Your task to perform on an android device: Show the shopping cart on newegg. Add "razer thresher" to the cart on newegg, then select checkout. Image 0: 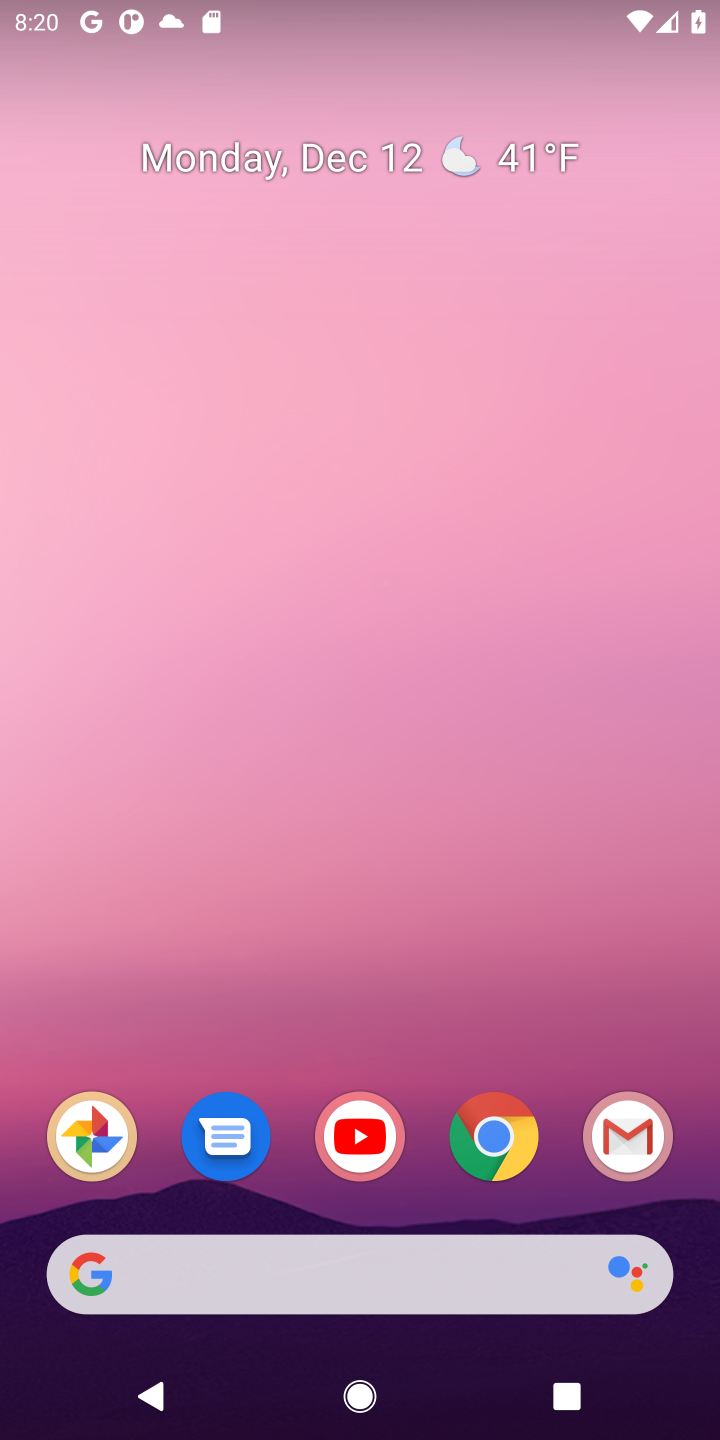
Step 0: click (499, 1142)
Your task to perform on an android device: Show the shopping cart on newegg. Add "razer thresher" to the cart on newegg, then select checkout. Image 1: 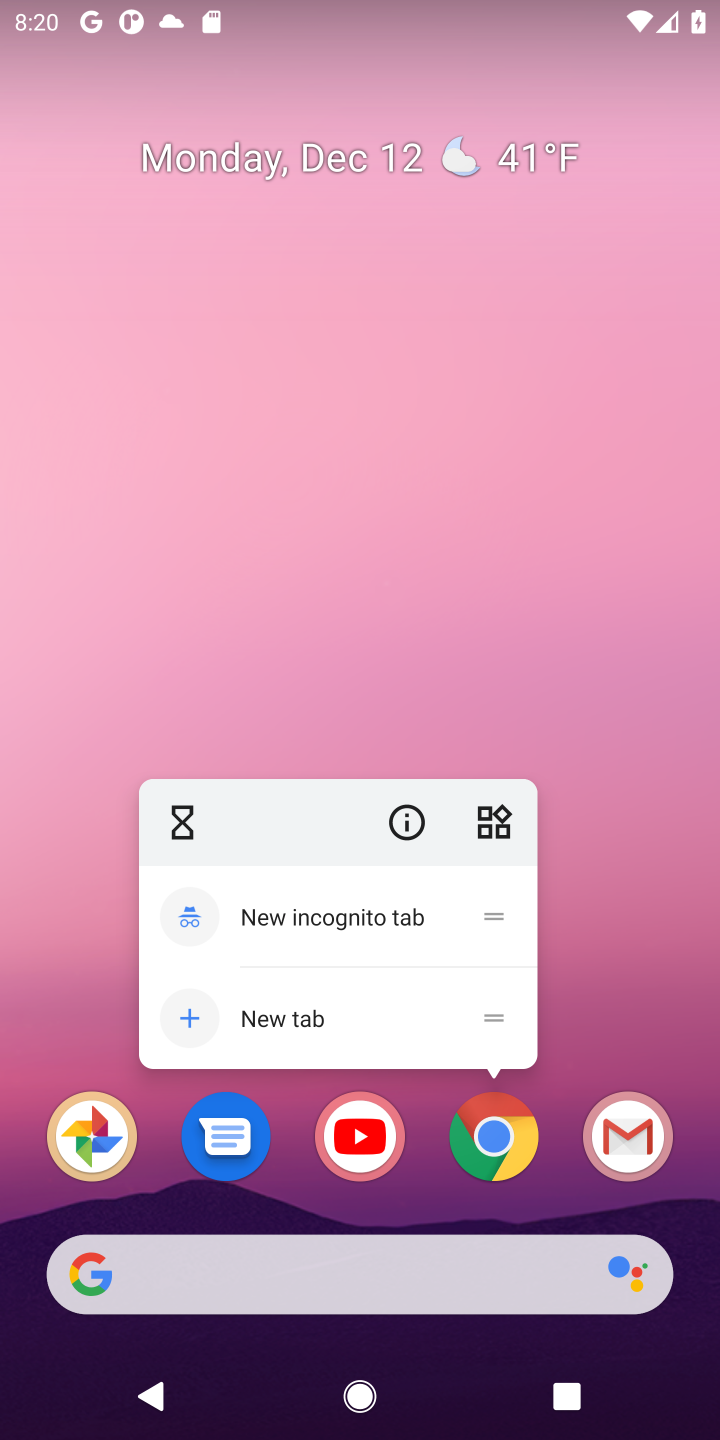
Step 1: click (499, 1142)
Your task to perform on an android device: Show the shopping cart on newegg. Add "razer thresher" to the cart on newegg, then select checkout. Image 2: 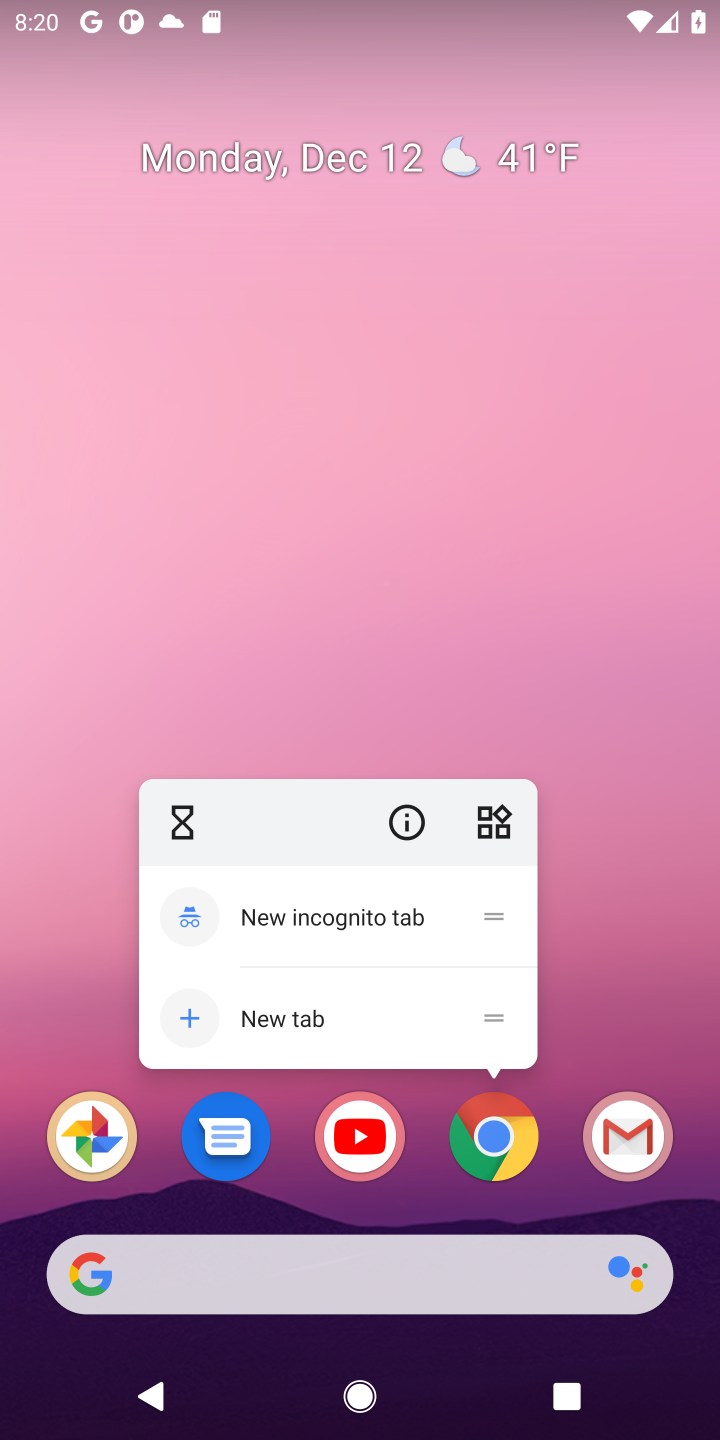
Step 2: click (499, 1142)
Your task to perform on an android device: Show the shopping cart on newegg. Add "razer thresher" to the cart on newegg, then select checkout. Image 3: 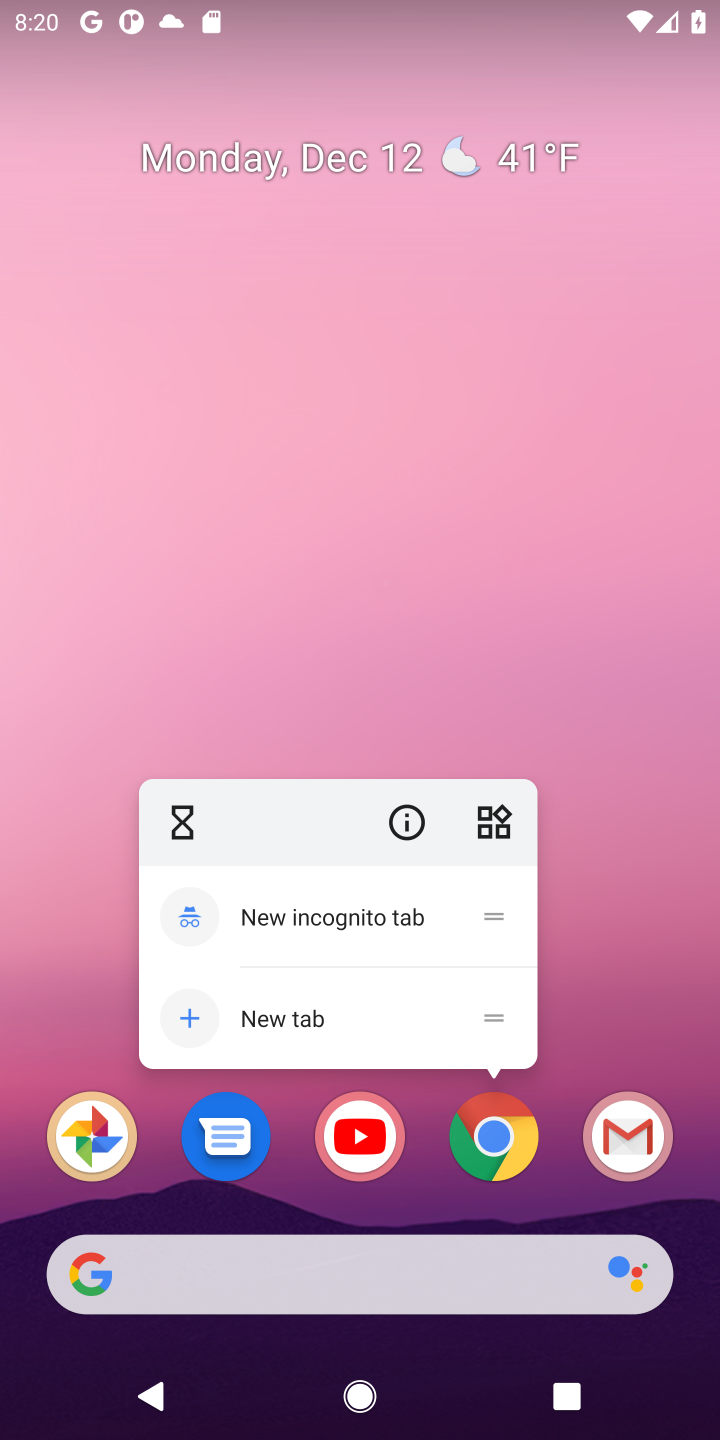
Step 3: click (499, 1142)
Your task to perform on an android device: Show the shopping cart on newegg. Add "razer thresher" to the cart on newegg, then select checkout. Image 4: 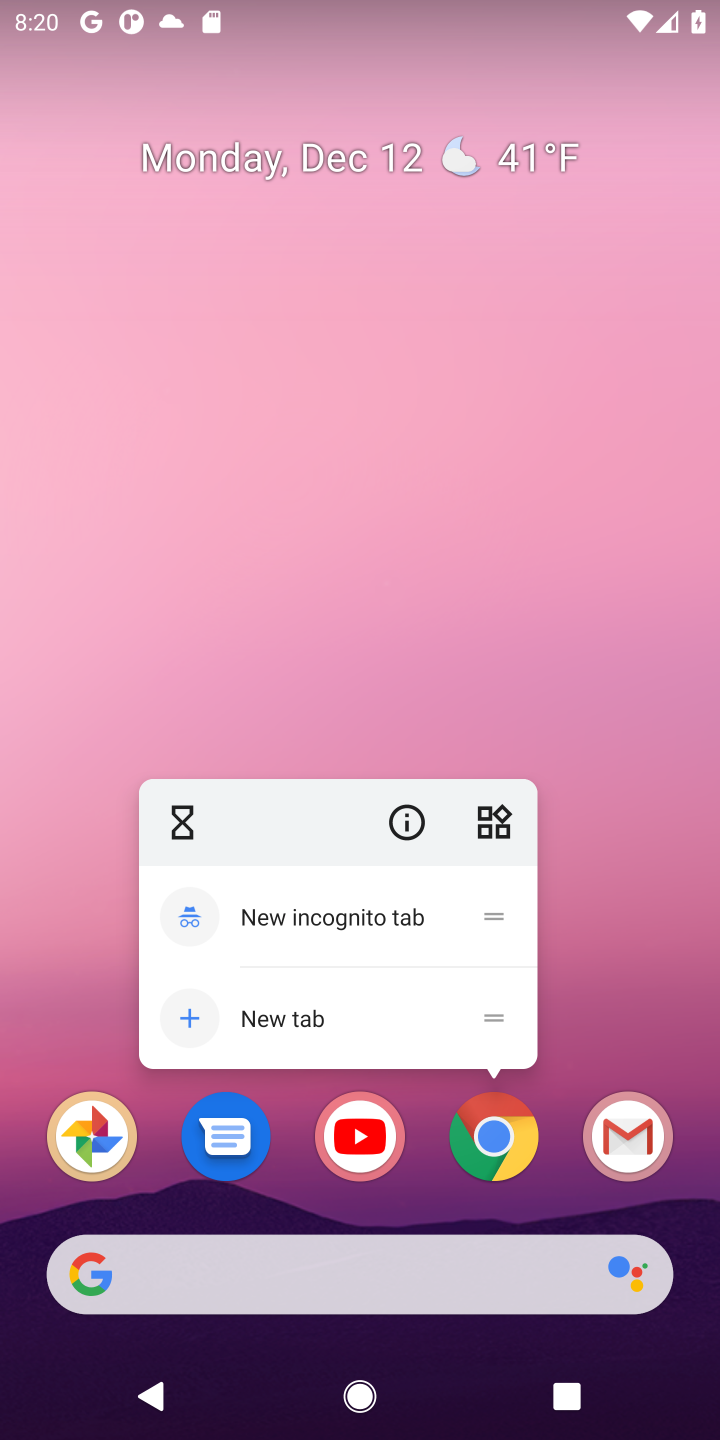
Step 4: click (675, 996)
Your task to perform on an android device: Show the shopping cart on newegg. Add "razer thresher" to the cart on newegg, then select checkout. Image 5: 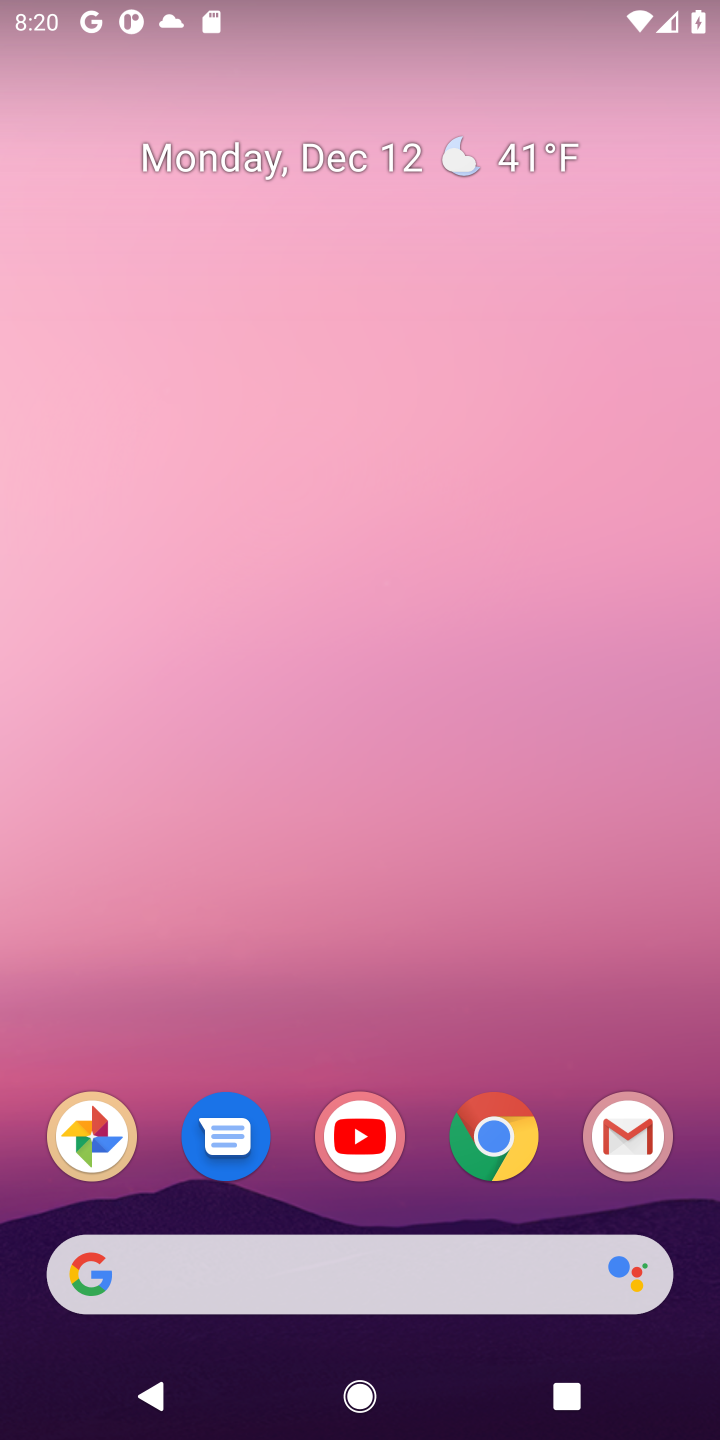
Step 5: click (495, 1140)
Your task to perform on an android device: Show the shopping cart on newegg. Add "razer thresher" to the cart on newegg, then select checkout. Image 6: 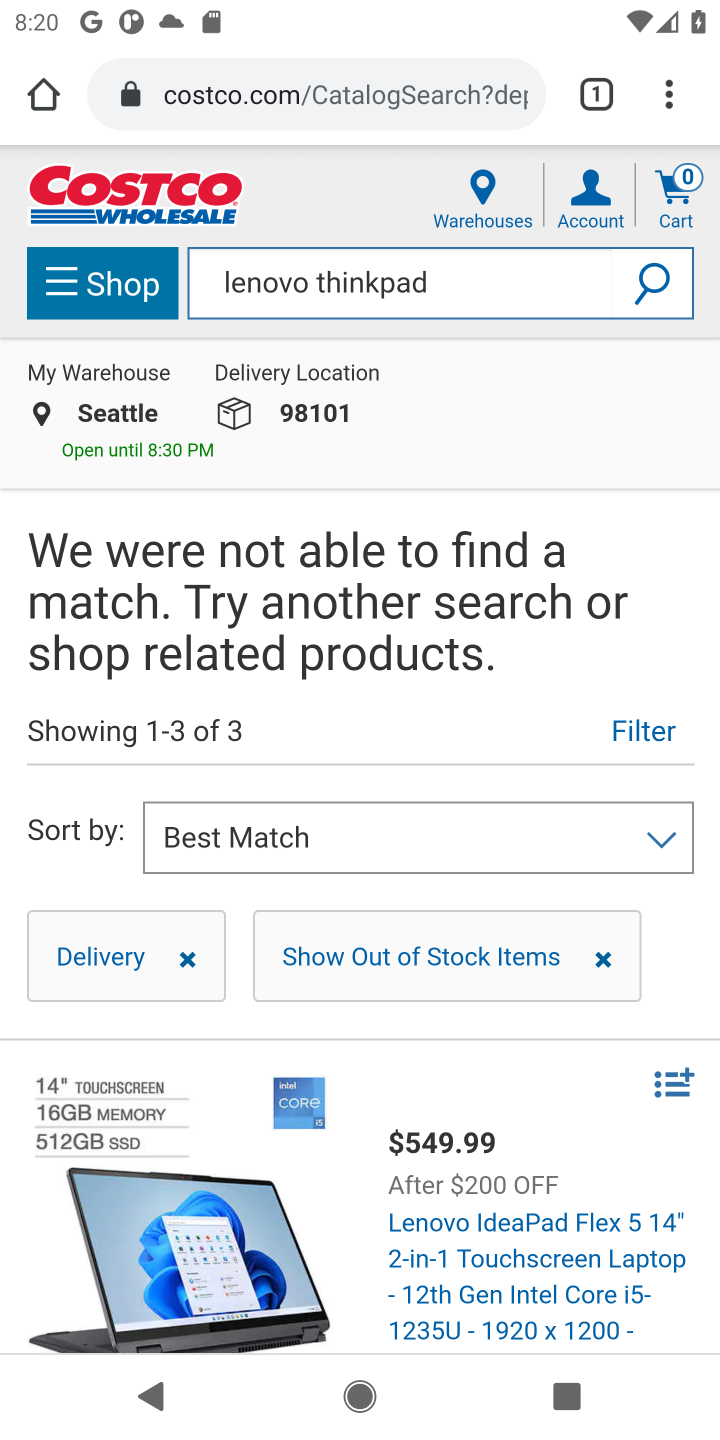
Step 6: click (302, 98)
Your task to perform on an android device: Show the shopping cart on newegg. Add "razer thresher" to the cart on newegg, then select checkout. Image 7: 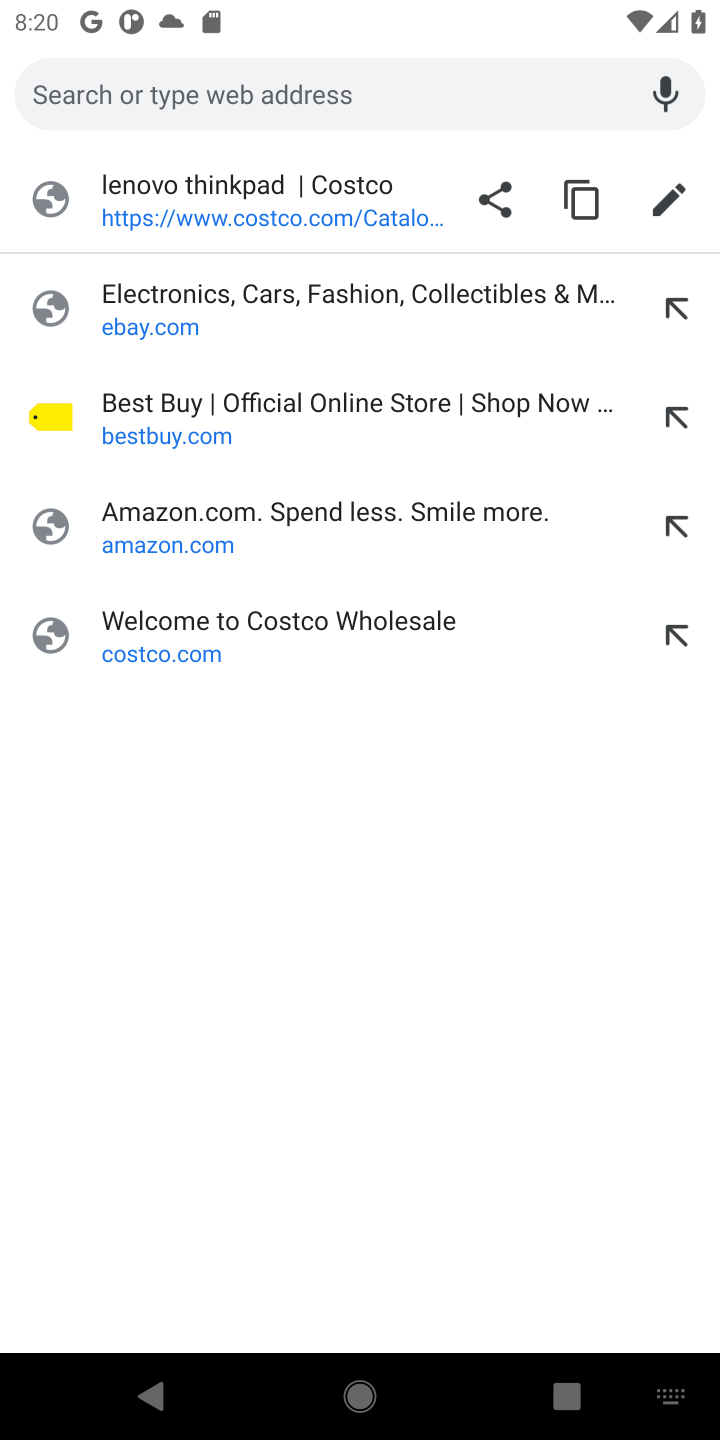
Step 7: type "newegg.com"
Your task to perform on an android device: Show the shopping cart on newegg. Add "razer thresher" to the cart on newegg, then select checkout. Image 8: 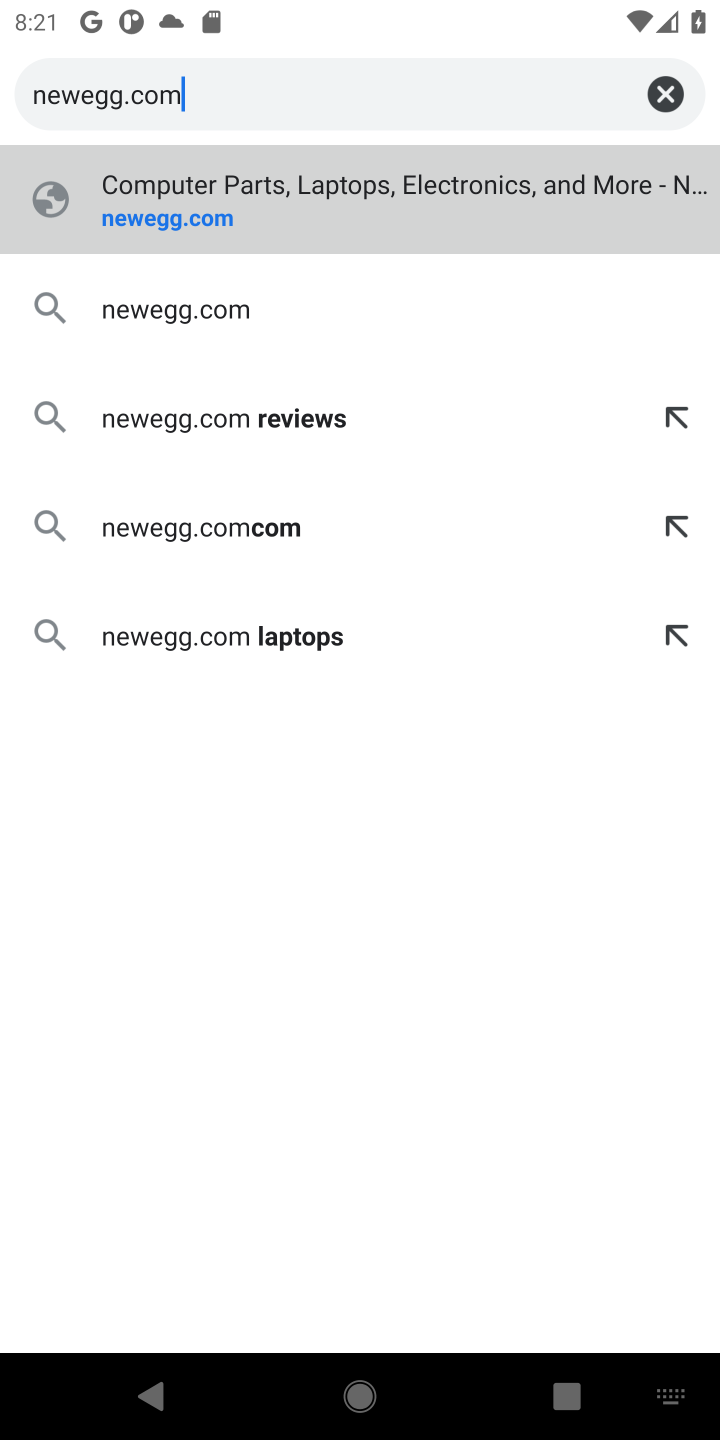
Step 8: click (184, 207)
Your task to perform on an android device: Show the shopping cart on newegg. Add "razer thresher" to the cart on newegg, then select checkout. Image 9: 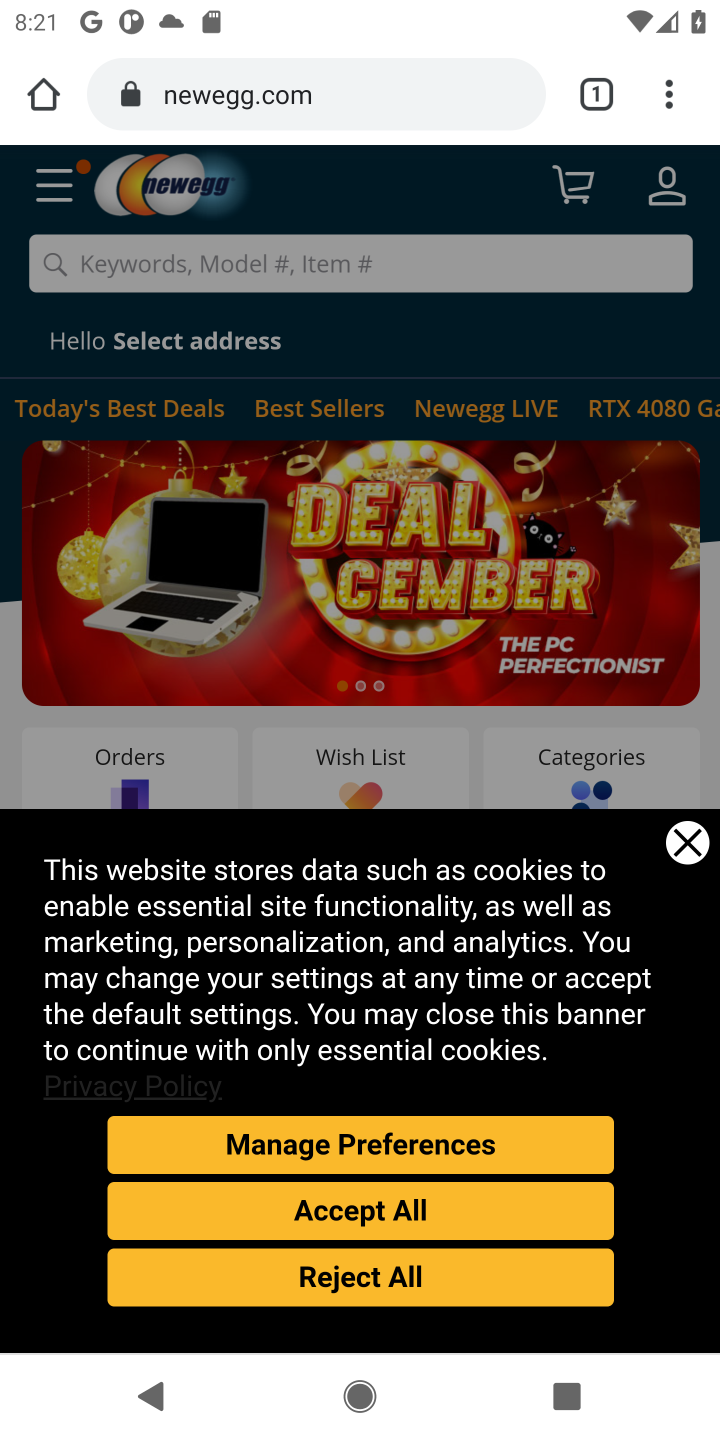
Step 9: click (697, 848)
Your task to perform on an android device: Show the shopping cart on newegg. Add "razer thresher" to the cart on newegg, then select checkout. Image 10: 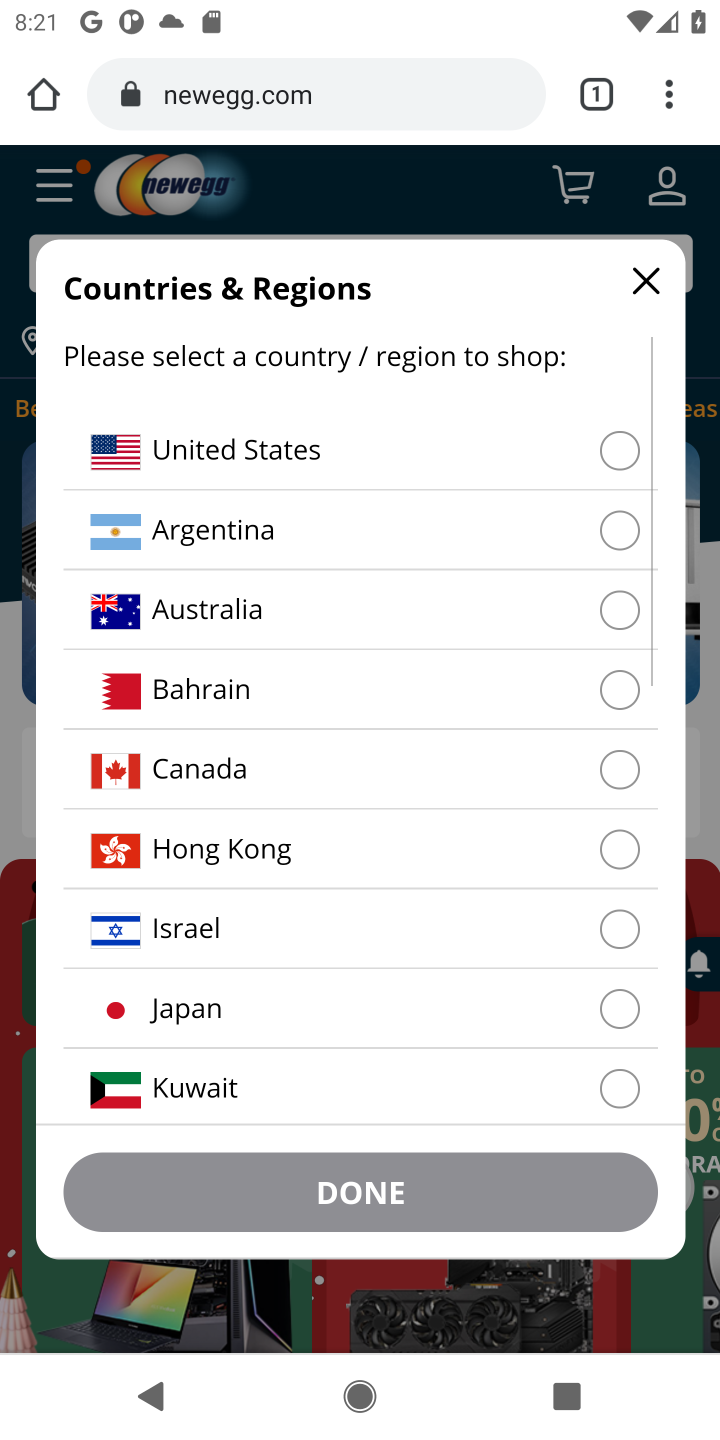
Step 10: click (186, 461)
Your task to perform on an android device: Show the shopping cart on newegg. Add "razer thresher" to the cart on newegg, then select checkout. Image 11: 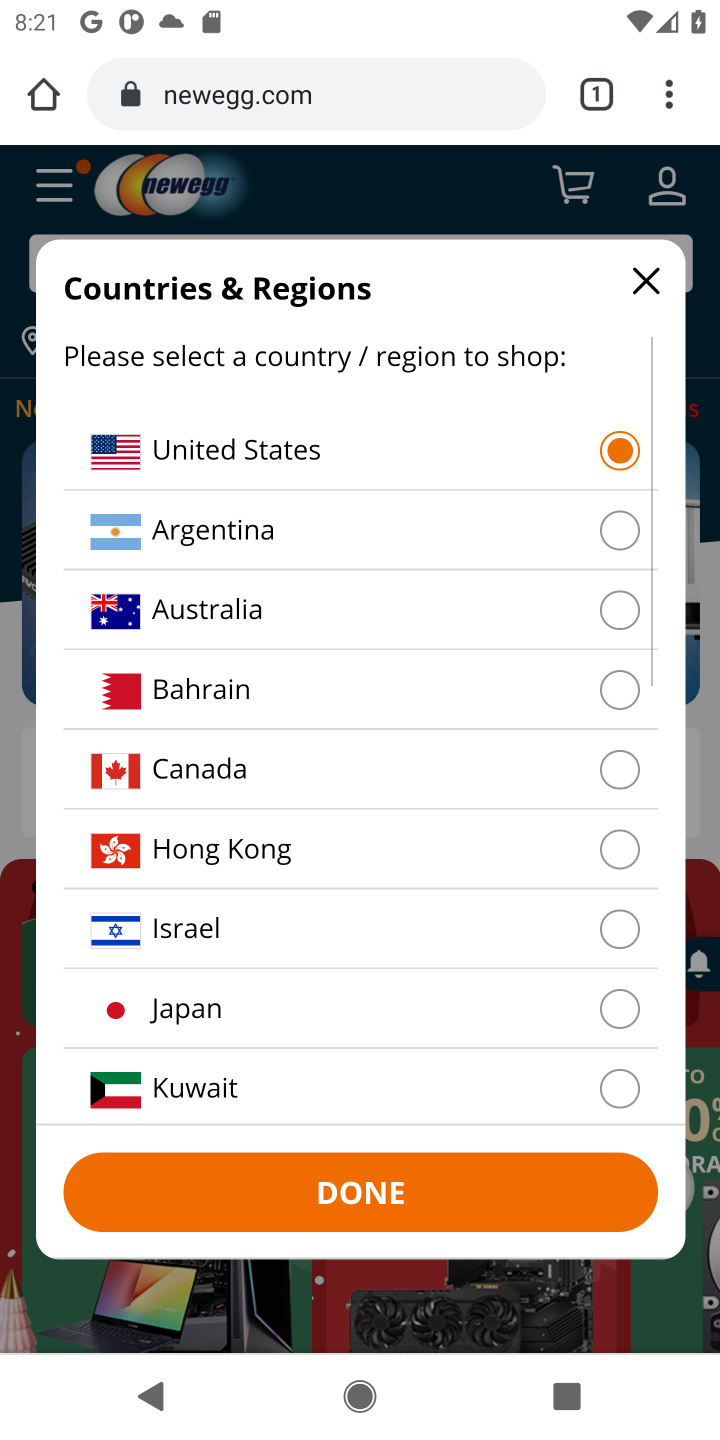
Step 11: click (420, 1188)
Your task to perform on an android device: Show the shopping cart on newegg. Add "razer thresher" to the cart on newegg, then select checkout. Image 12: 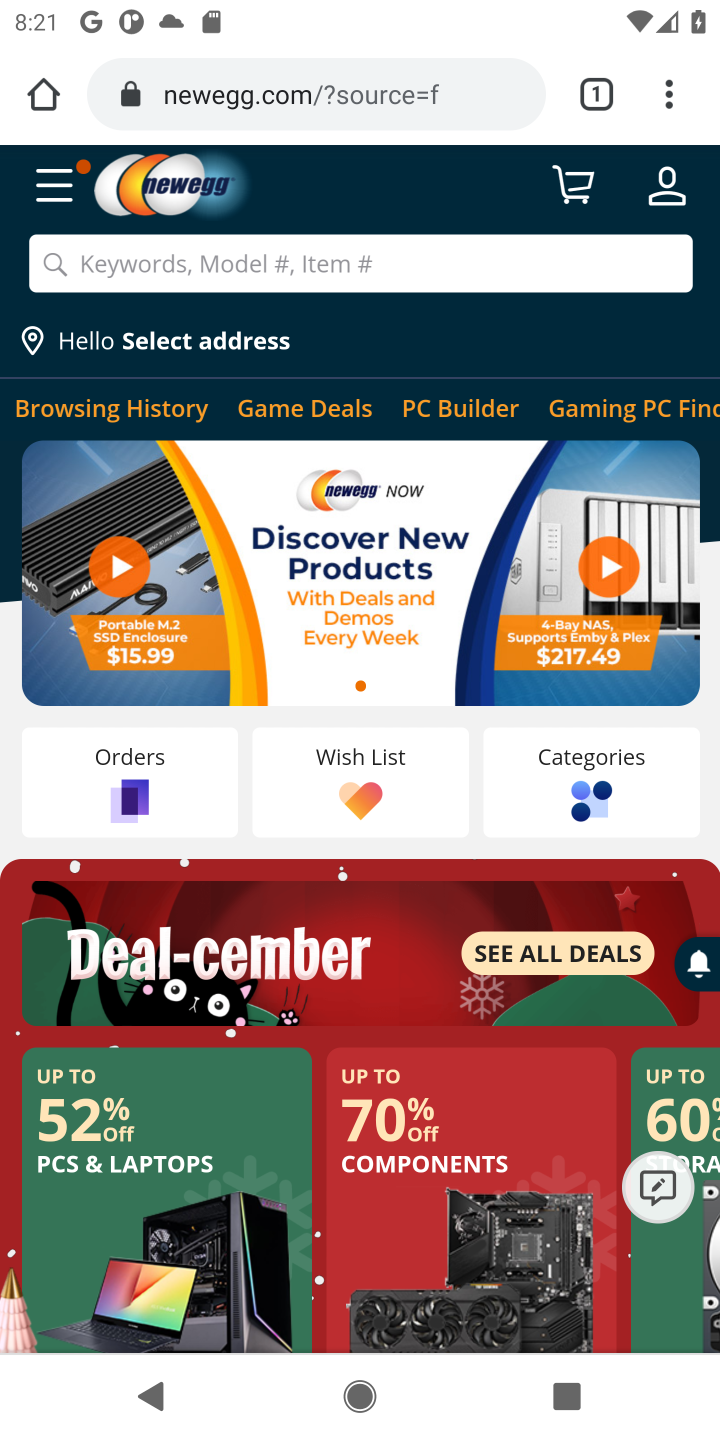
Step 12: click (573, 200)
Your task to perform on an android device: Show the shopping cart on newegg. Add "razer thresher" to the cart on newegg, then select checkout. Image 13: 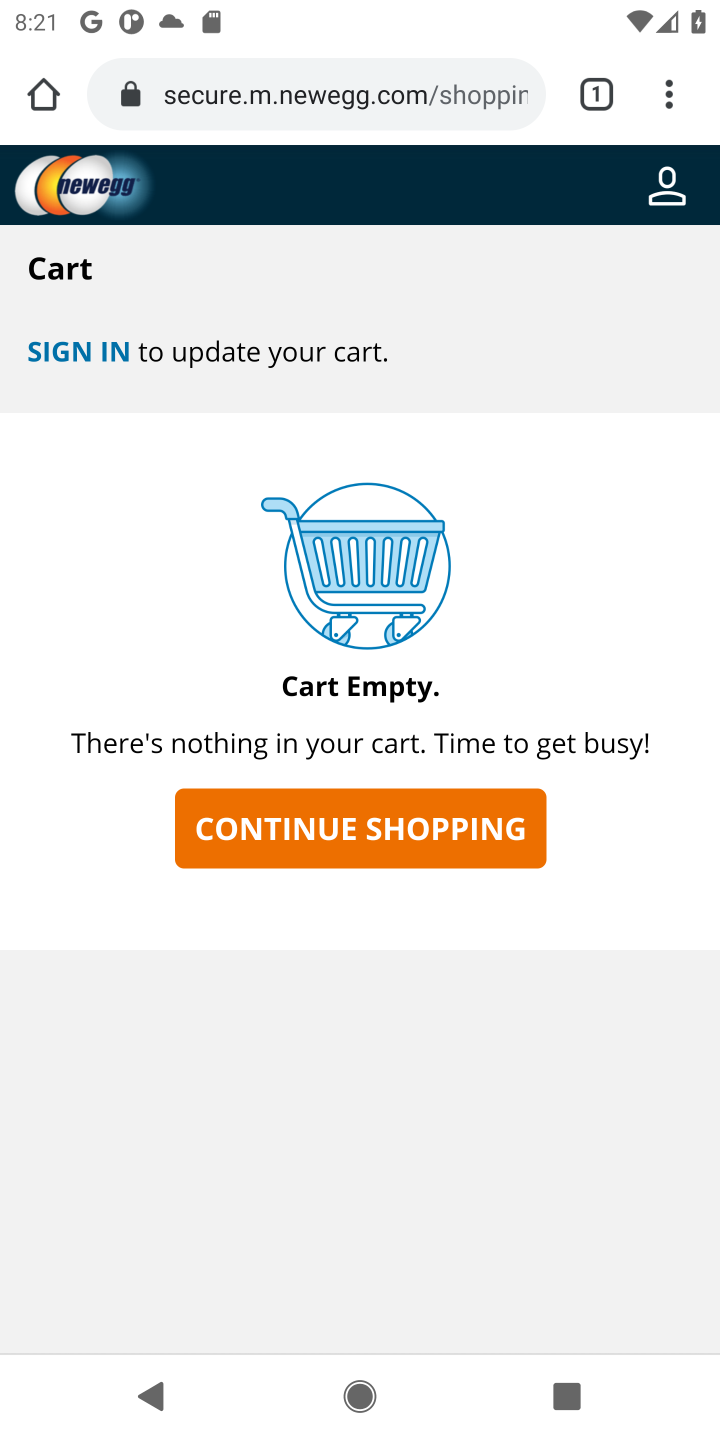
Step 13: click (336, 842)
Your task to perform on an android device: Show the shopping cart on newegg. Add "razer thresher" to the cart on newegg, then select checkout. Image 14: 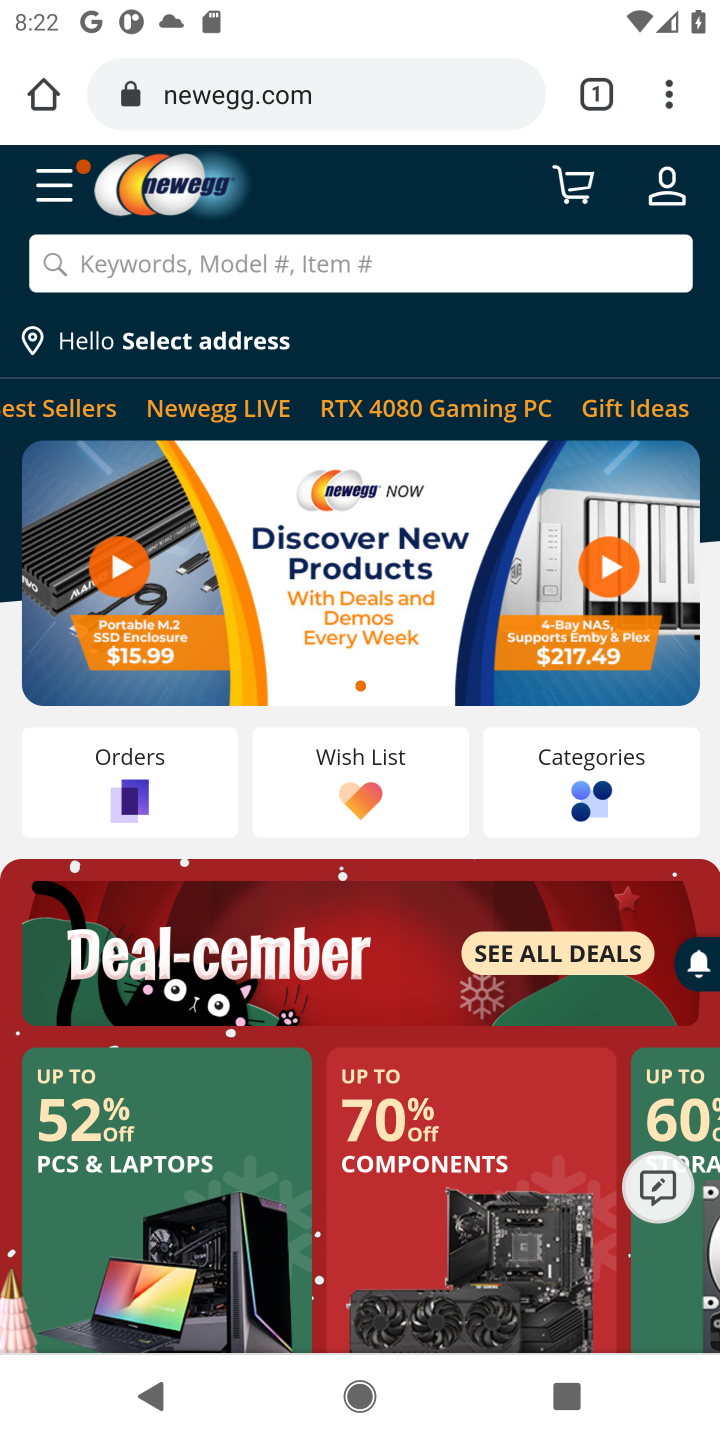
Step 14: click (115, 267)
Your task to perform on an android device: Show the shopping cart on newegg. Add "razer thresher" to the cart on newegg, then select checkout. Image 15: 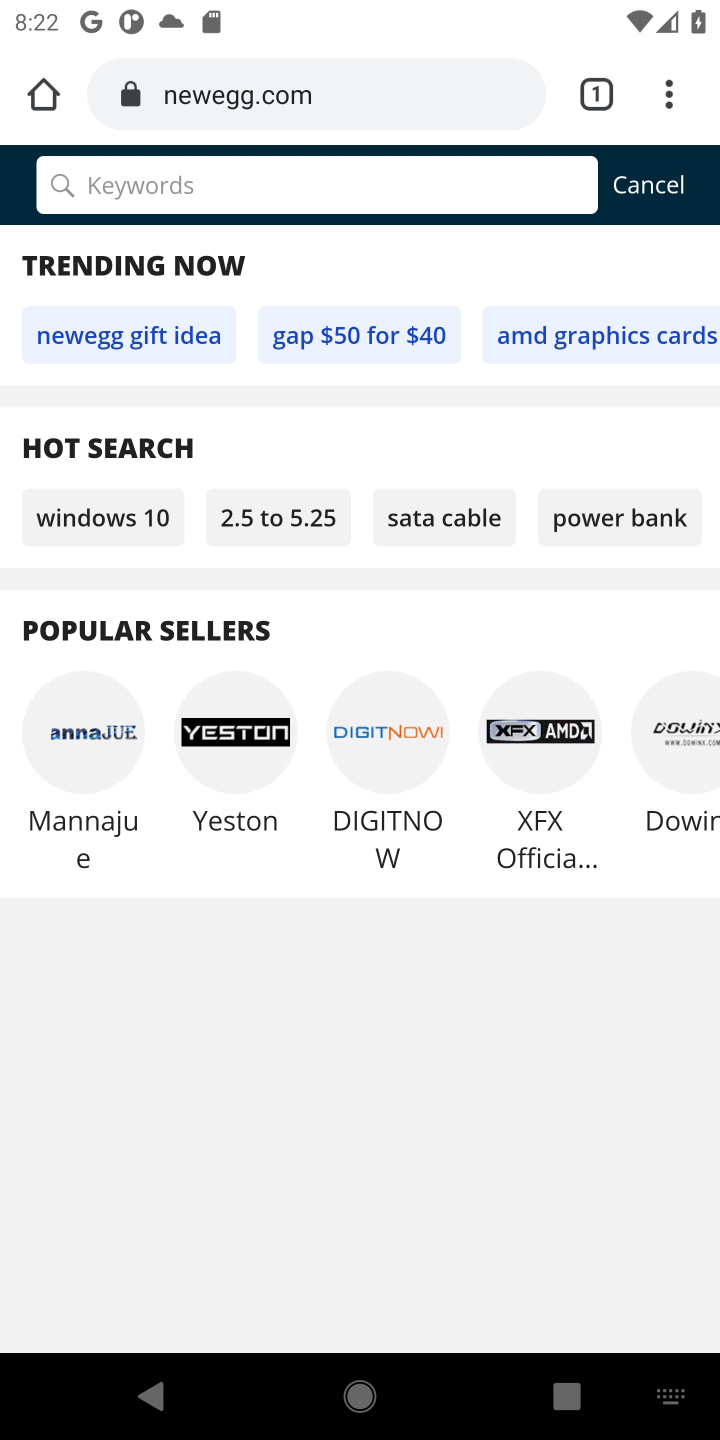
Step 15: type "razer thresher"
Your task to perform on an android device: Show the shopping cart on newegg. Add "razer thresher" to the cart on newegg, then select checkout. Image 16: 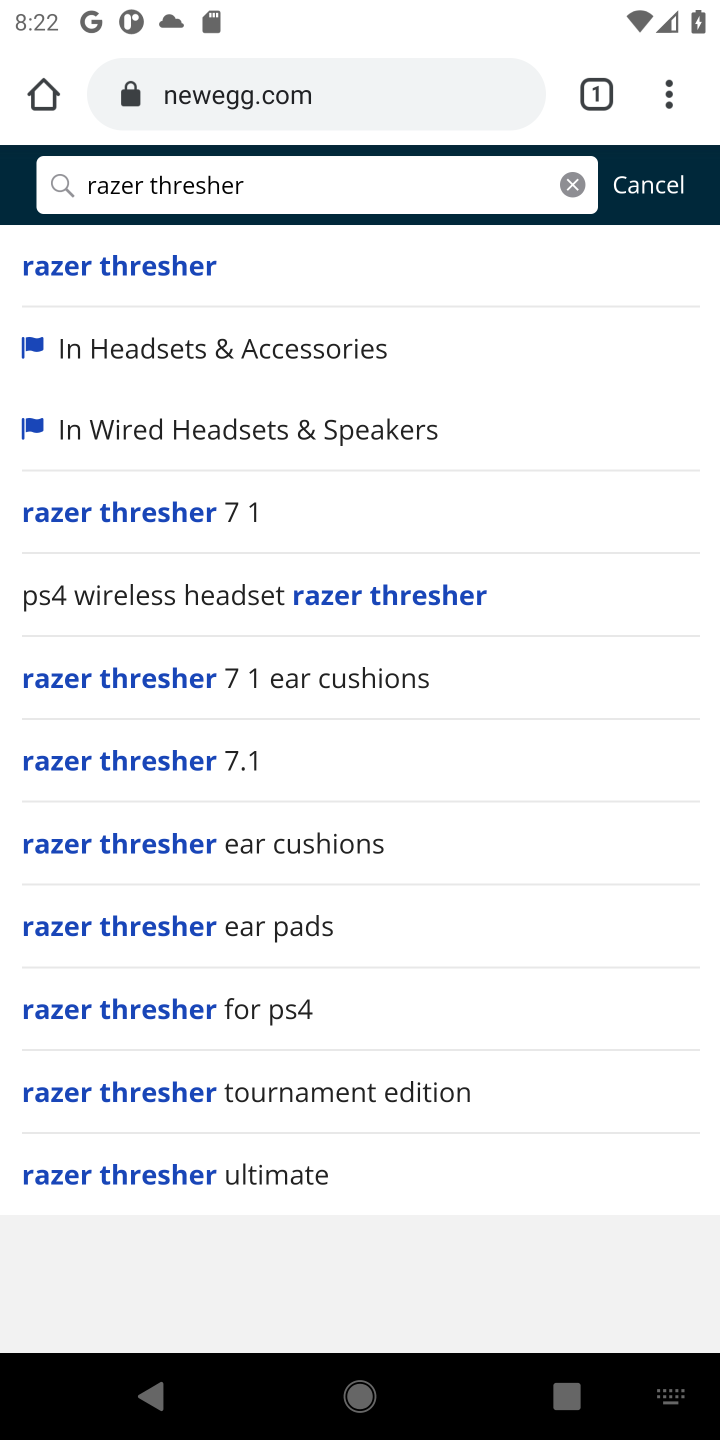
Step 16: click (199, 273)
Your task to perform on an android device: Show the shopping cart on newegg. Add "razer thresher" to the cart on newegg, then select checkout. Image 17: 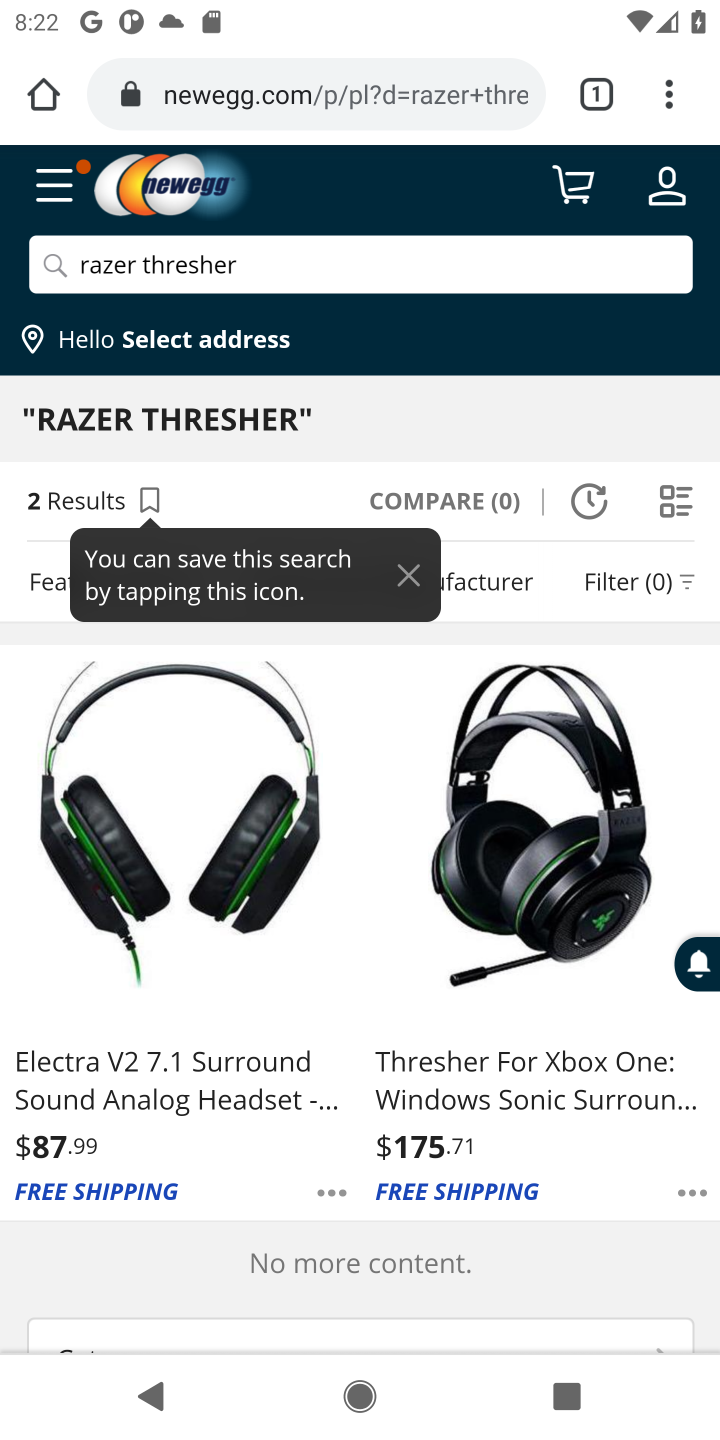
Step 17: drag from (281, 1104) to (328, 816)
Your task to perform on an android device: Show the shopping cart on newegg. Add "razer thresher" to the cart on newegg, then select checkout. Image 18: 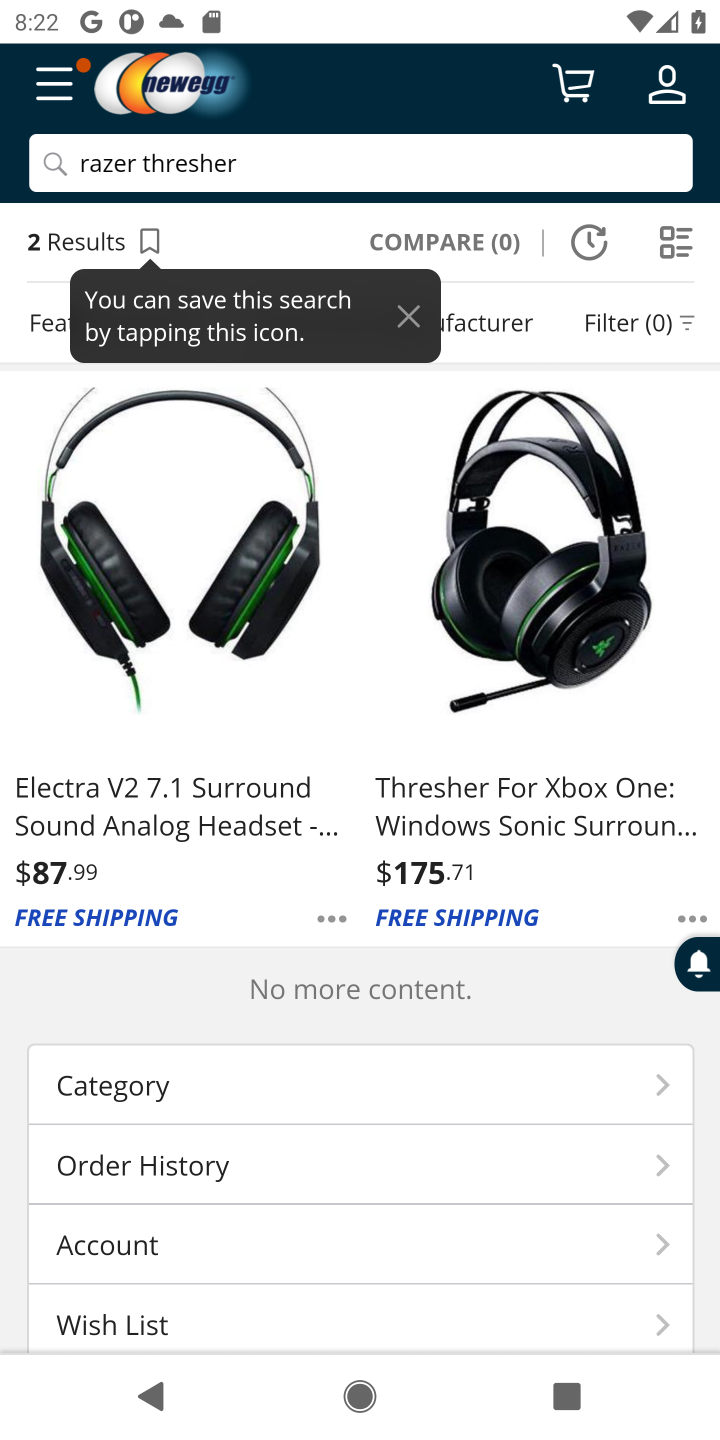
Step 18: click (565, 543)
Your task to perform on an android device: Show the shopping cart on newegg. Add "razer thresher" to the cart on newegg, then select checkout. Image 19: 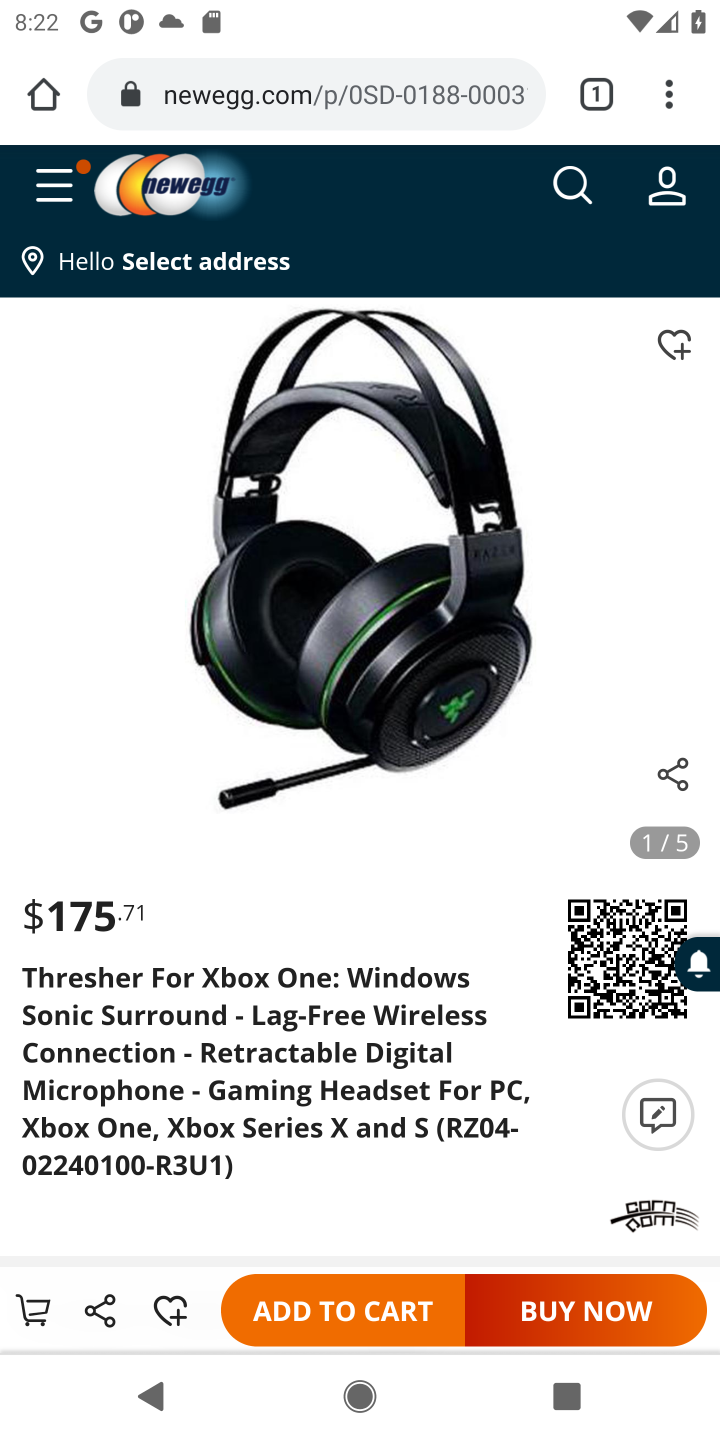
Step 19: click (336, 1297)
Your task to perform on an android device: Show the shopping cart on newegg. Add "razer thresher" to the cart on newegg, then select checkout. Image 20: 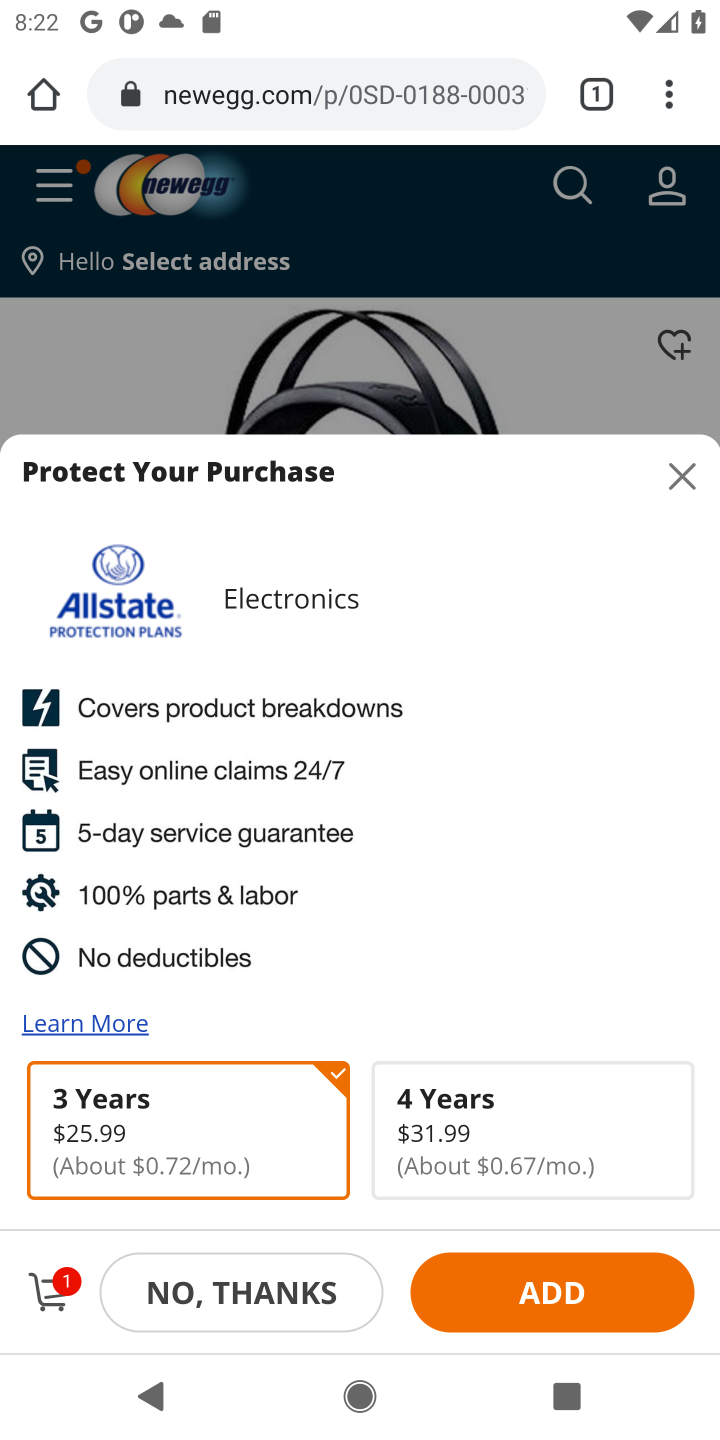
Step 20: click (59, 1285)
Your task to perform on an android device: Show the shopping cart on newegg. Add "razer thresher" to the cart on newegg, then select checkout. Image 21: 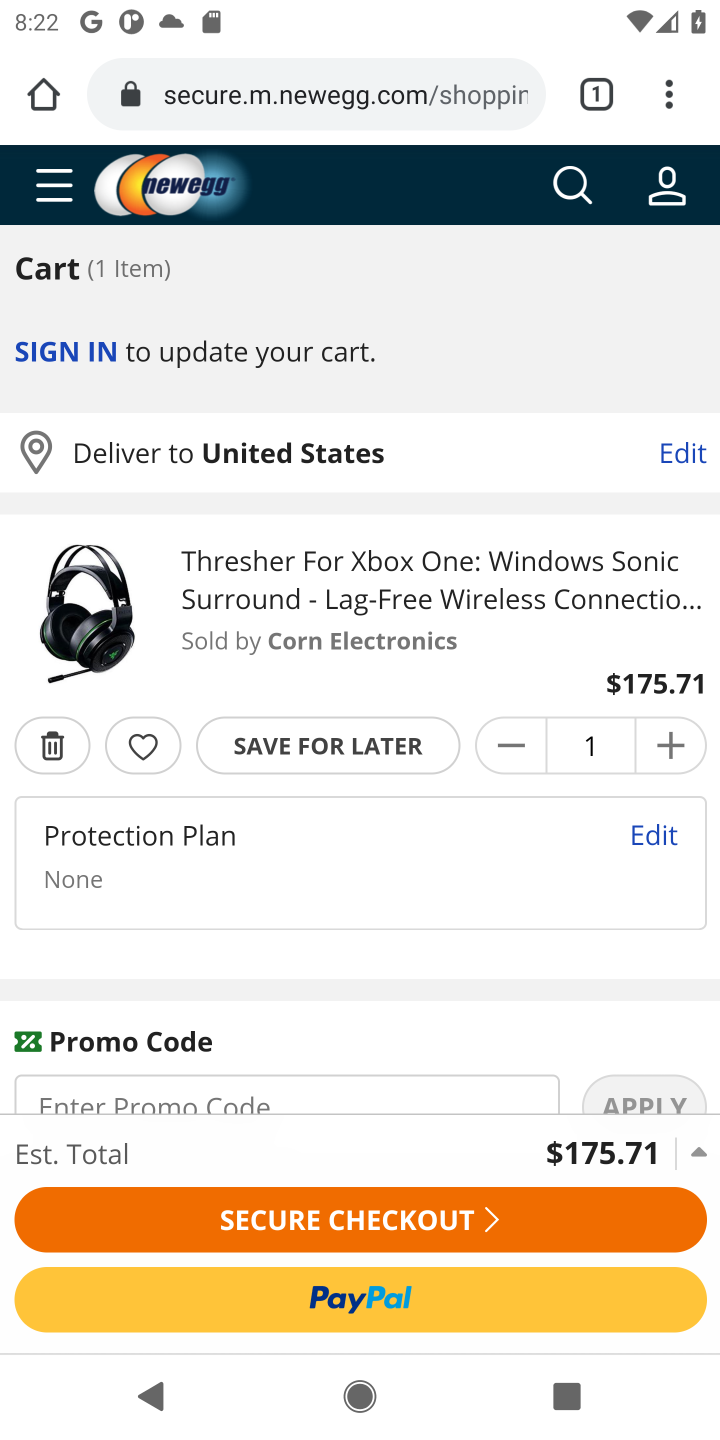
Step 21: click (109, 1274)
Your task to perform on an android device: Show the shopping cart on newegg. Add "razer thresher" to the cart on newegg, then select checkout. Image 22: 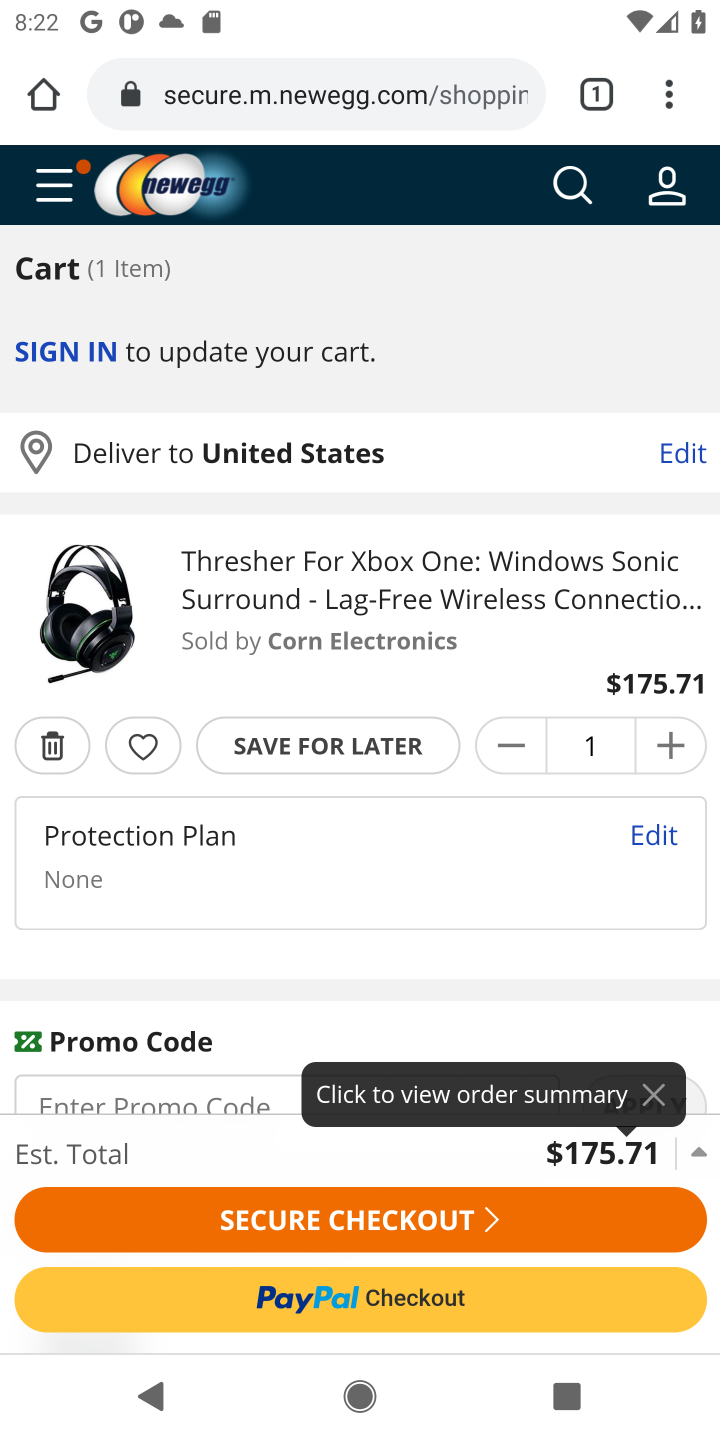
Step 22: click (196, 1217)
Your task to perform on an android device: Show the shopping cart on newegg. Add "razer thresher" to the cart on newegg, then select checkout. Image 23: 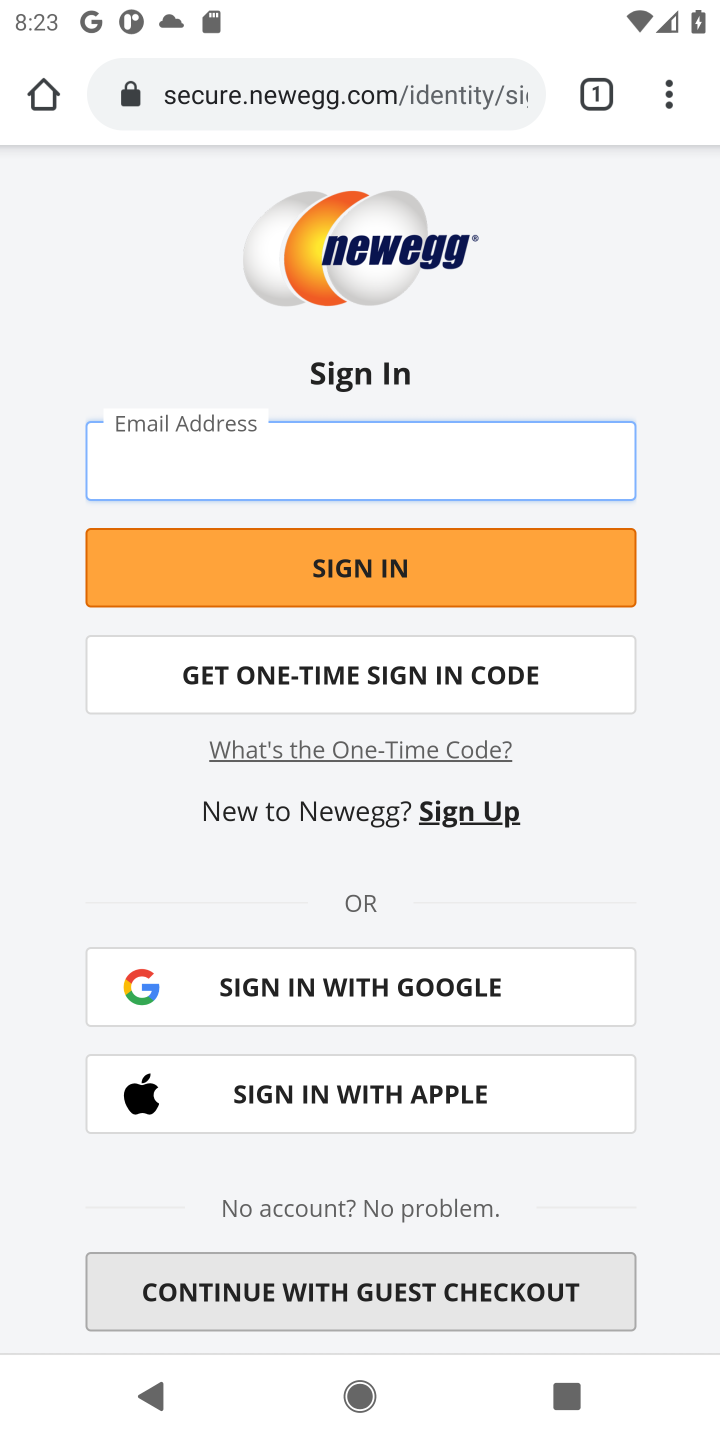
Step 23: task complete